Your task to perform on an android device: turn off notifications in google photos Image 0: 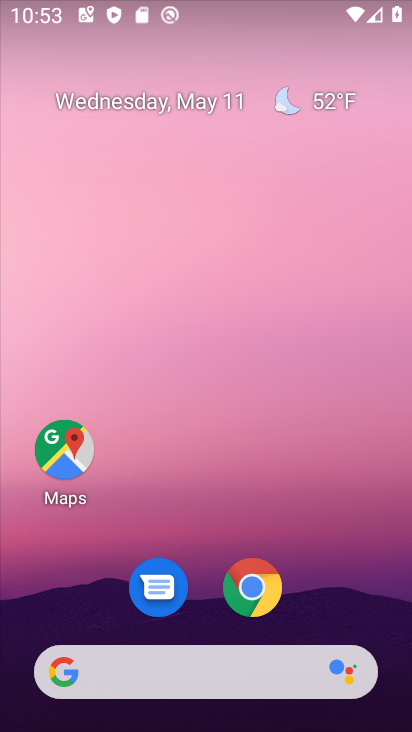
Step 0: drag from (222, 673) to (247, 172)
Your task to perform on an android device: turn off notifications in google photos Image 1: 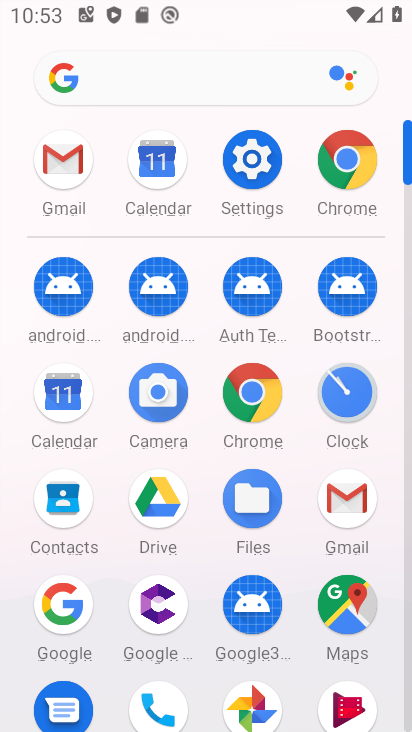
Step 1: click (254, 682)
Your task to perform on an android device: turn off notifications in google photos Image 2: 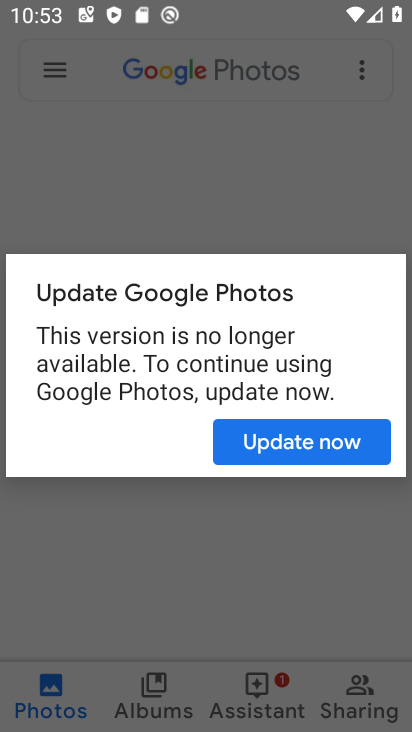
Step 2: click (269, 434)
Your task to perform on an android device: turn off notifications in google photos Image 3: 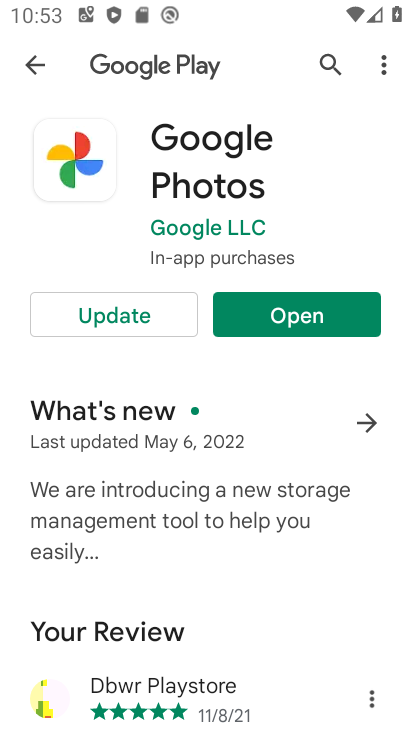
Step 3: click (285, 329)
Your task to perform on an android device: turn off notifications in google photos Image 4: 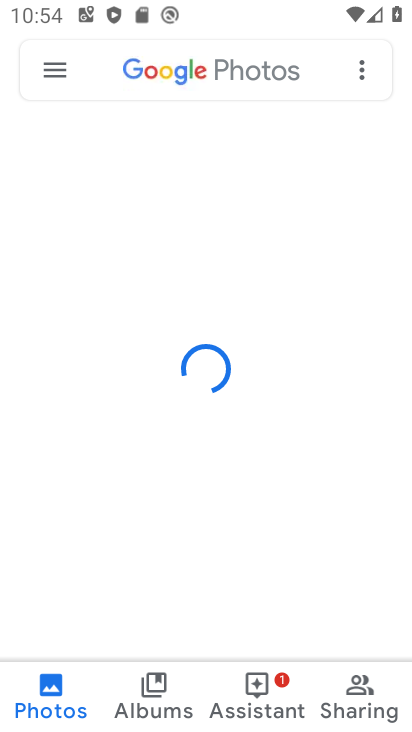
Step 4: click (33, 109)
Your task to perform on an android device: turn off notifications in google photos Image 5: 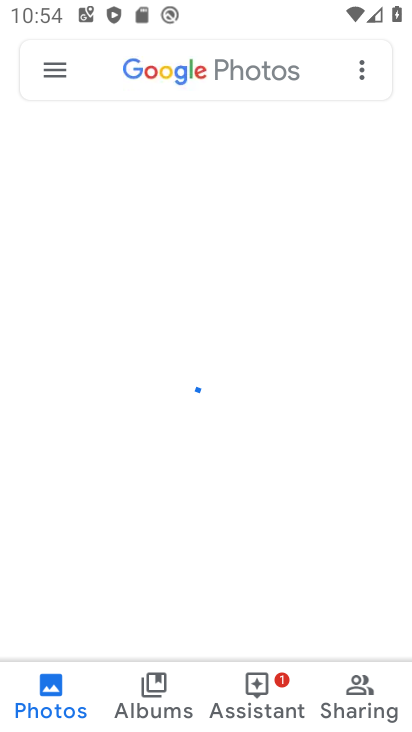
Step 5: click (54, 77)
Your task to perform on an android device: turn off notifications in google photos Image 6: 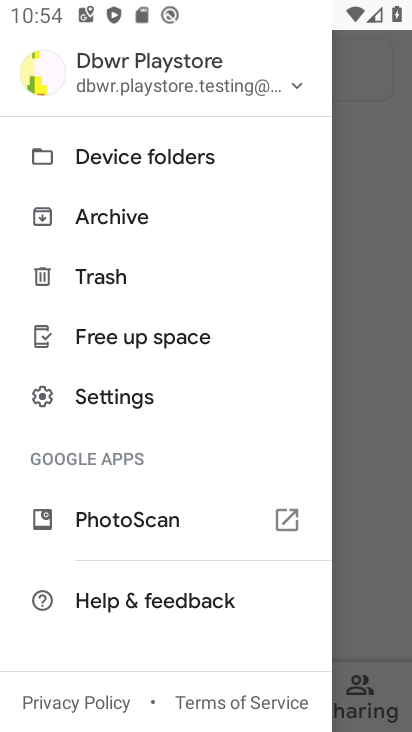
Step 6: click (129, 399)
Your task to perform on an android device: turn off notifications in google photos Image 7: 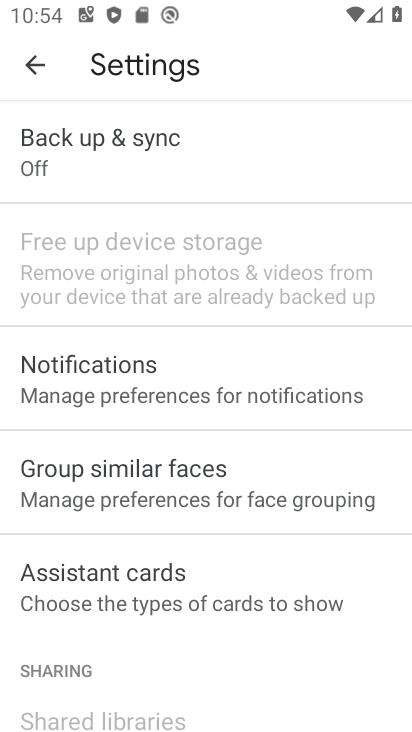
Step 7: click (152, 136)
Your task to perform on an android device: turn off notifications in google photos Image 8: 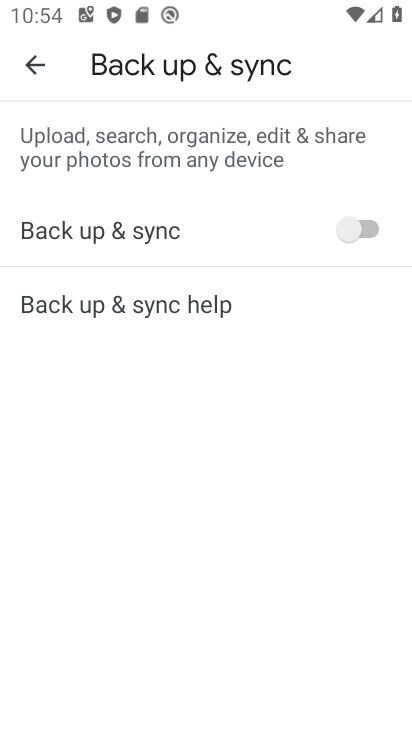
Step 8: click (37, 70)
Your task to perform on an android device: turn off notifications in google photos Image 9: 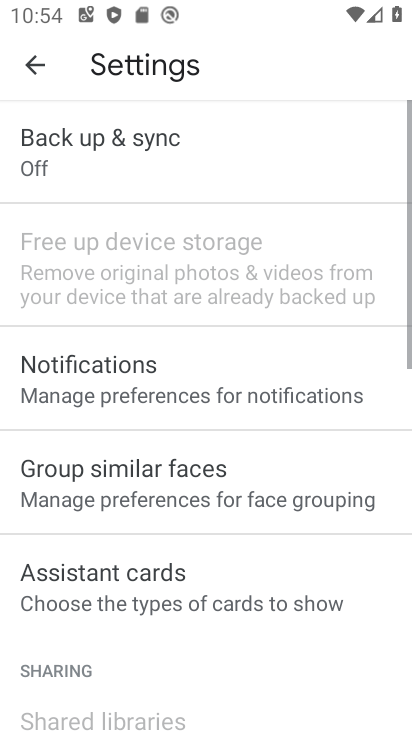
Step 9: drag from (173, 537) to (230, 434)
Your task to perform on an android device: turn off notifications in google photos Image 10: 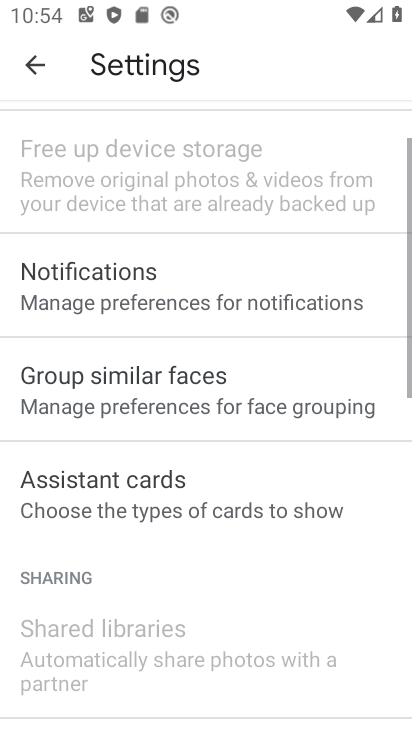
Step 10: click (181, 283)
Your task to perform on an android device: turn off notifications in google photos Image 11: 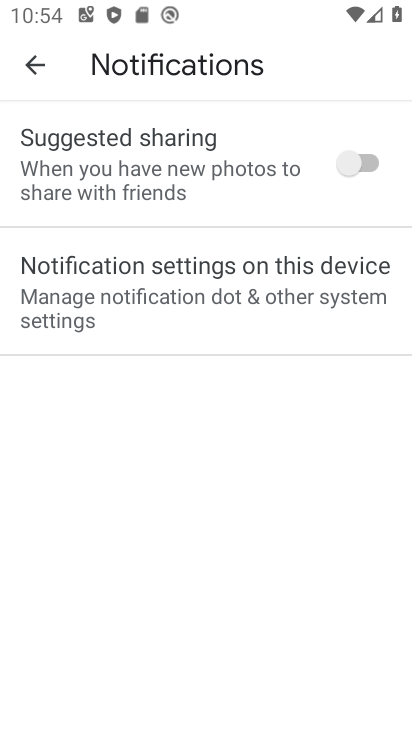
Step 11: click (173, 296)
Your task to perform on an android device: turn off notifications in google photos Image 12: 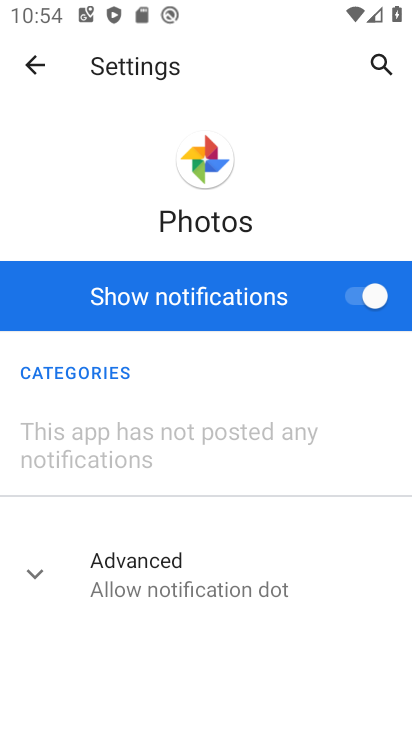
Step 12: click (351, 295)
Your task to perform on an android device: turn off notifications in google photos Image 13: 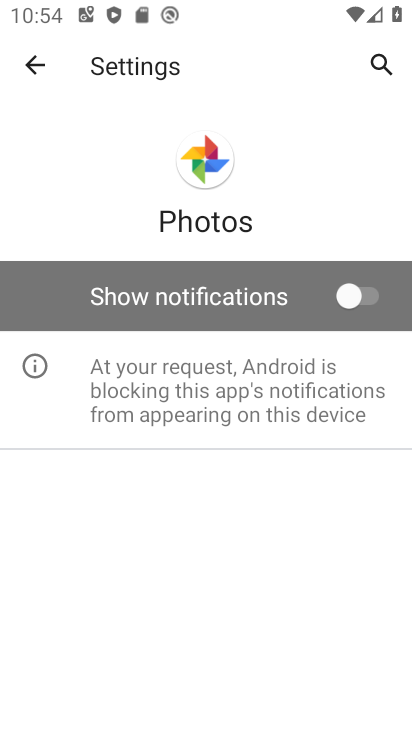
Step 13: task complete